Your task to perform on an android device: Go to Yahoo.com Image 0: 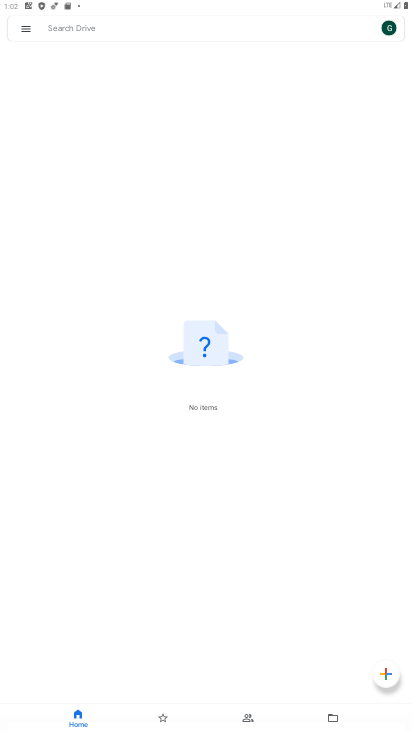
Step 0: press home button
Your task to perform on an android device: Go to Yahoo.com Image 1: 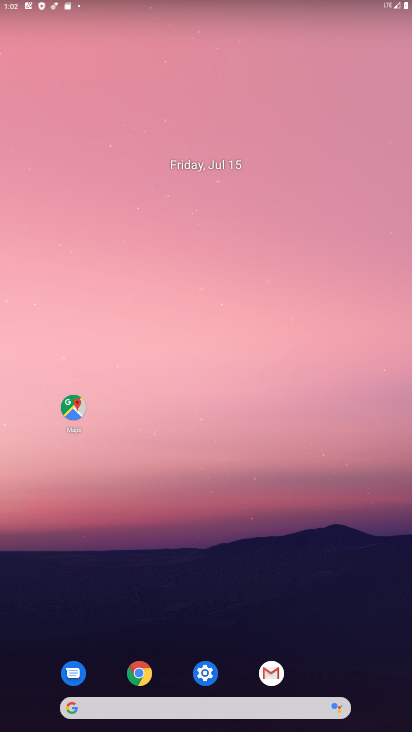
Step 1: click (143, 669)
Your task to perform on an android device: Go to Yahoo.com Image 2: 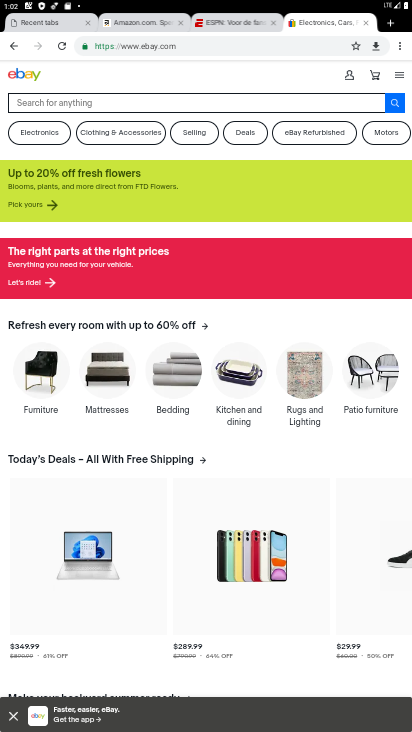
Step 2: click (387, 22)
Your task to perform on an android device: Go to Yahoo.com Image 3: 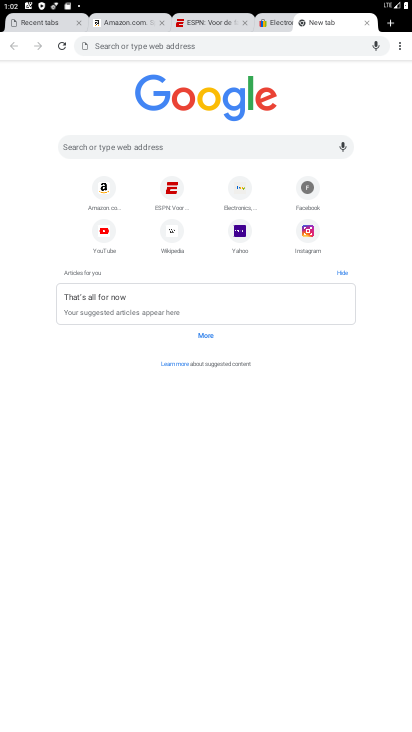
Step 3: click (235, 239)
Your task to perform on an android device: Go to Yahoo.com Image 4: 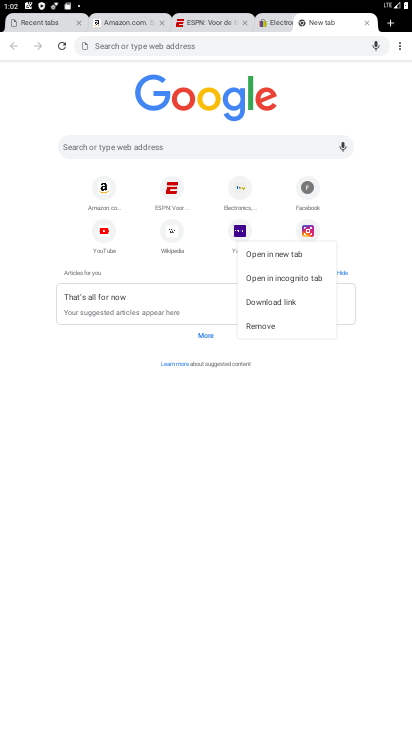
Step 4: click (247, 227)
Your task to perform on an android device: Go to Yahoo.com Image 5: 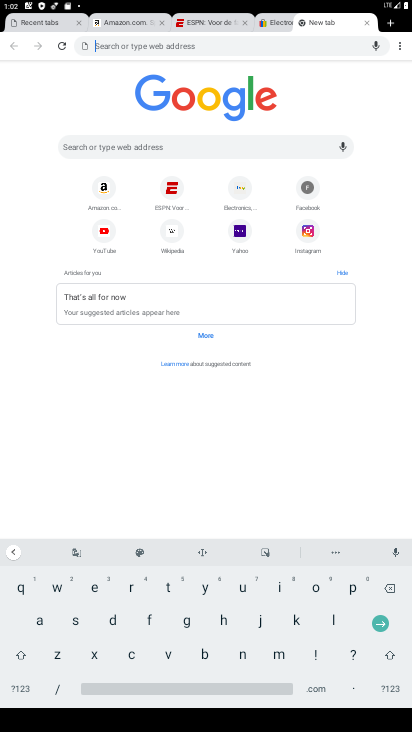
Step 5: click (236, 237)
Your task to perform on an android device: Go to Yahoo.com Image 6: 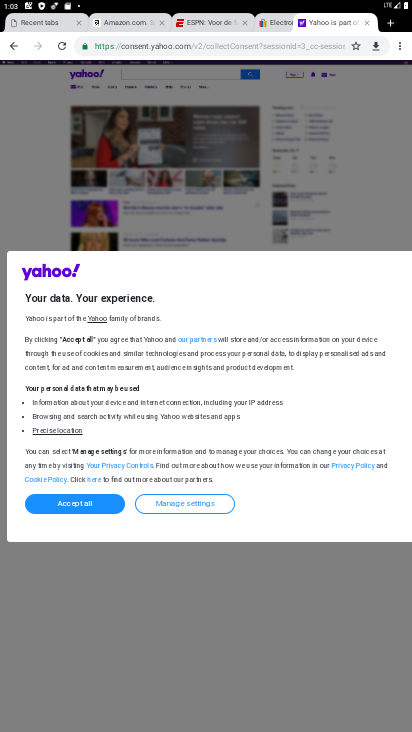
Step 6: click (84, 503)
Your task to perform on an android device: Go to Yahoo.com Image 7: 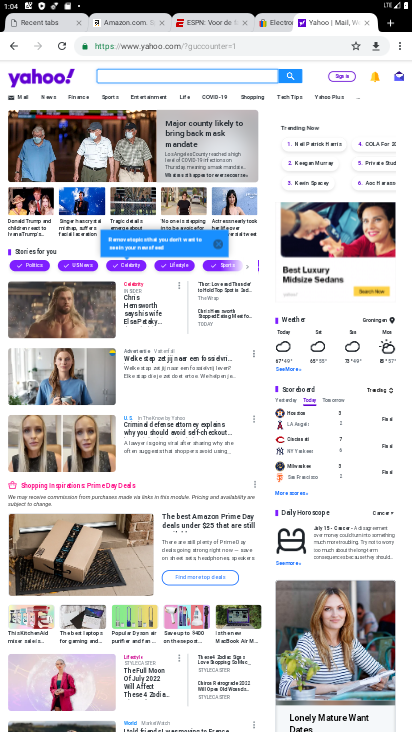
Step 7: task complete